Your task to perform on an android device: manage bookmarks in the chrome app Image 0: 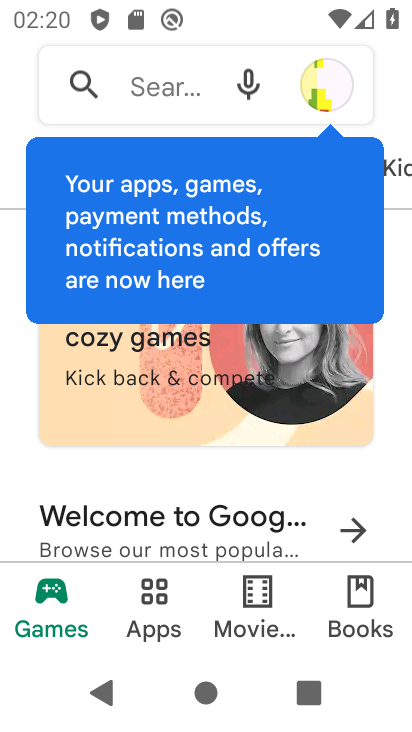
Step 0: press home button
Your task to perform on an android device: manage bookmarks in the chrome app Image 1: 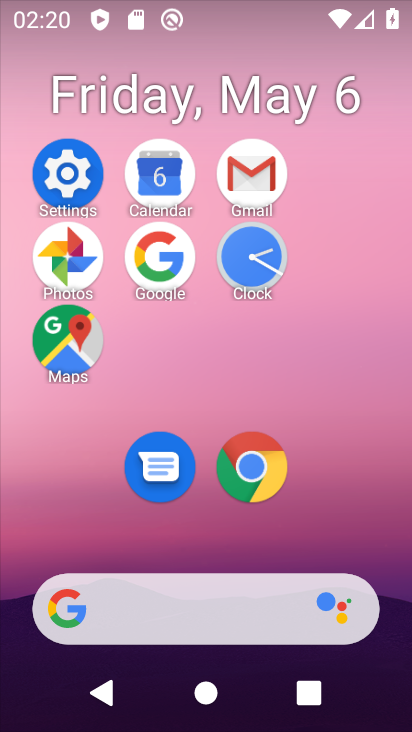
Step 1: click (267, 455)
Your task to perform on an android device: manage bookmarks in the chrome app Image 2: 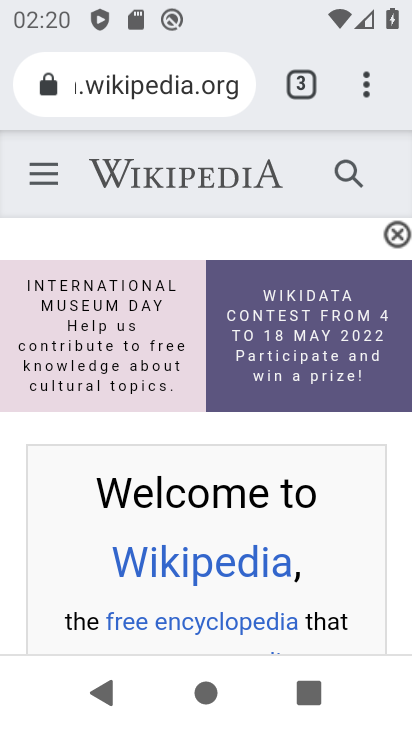
Step 2: click (360, 77)
Your task to perform on an android device: manage bookmarks in the chrome app Image 3: 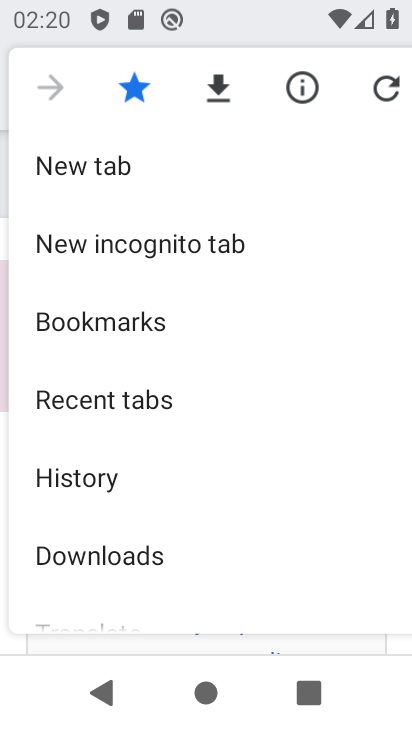
Step 3: click (153, 338)
Your task to perform on an android device: manage bookmarks in the chrome app Image 4: 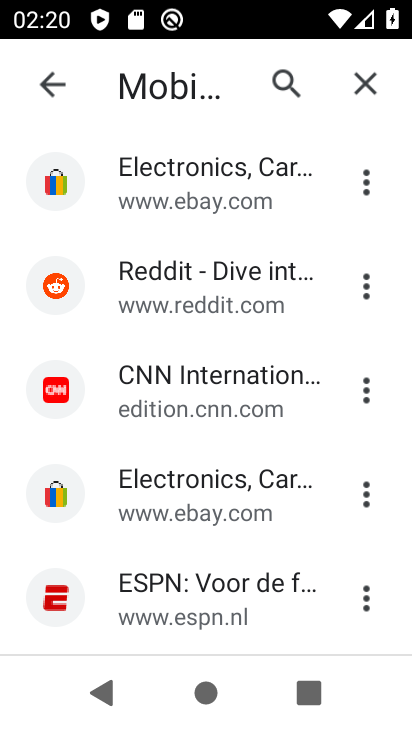
Step 4: click (360, 190)
Your task to perform on an android device: manage bookmarks in the chrome app Image 5: 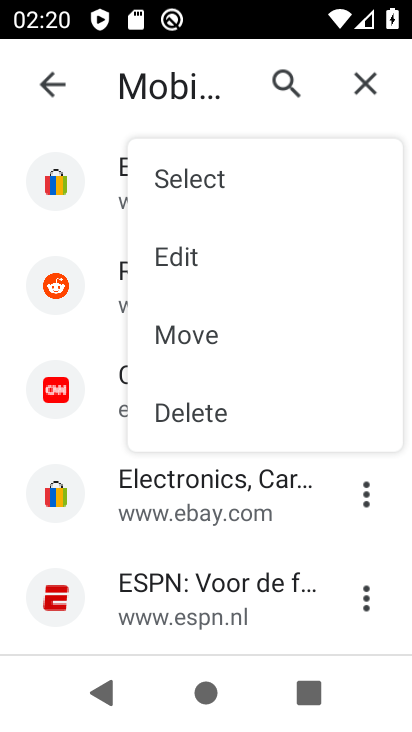
Step 5: click (223, 412)
Your task to perform on an android device: manage bookmarks in the chrome app Image 6: 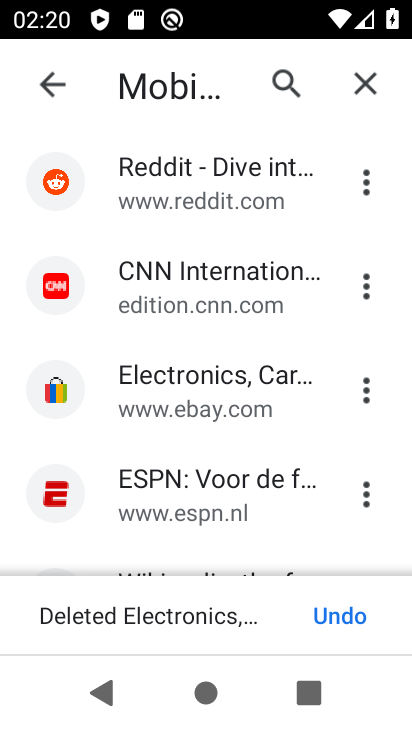
Step 6: task complete